Your task to perform on an android device: Go to sound settings Image 0: 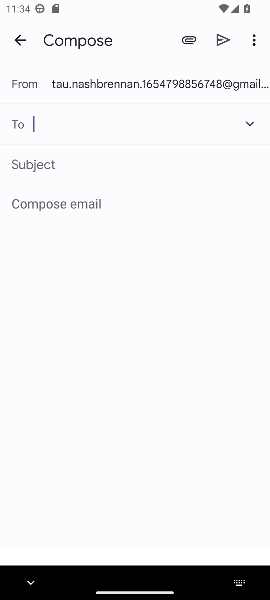
Step 0: press home button
Your task to perform on an android device: Go to sound settings Image 1: 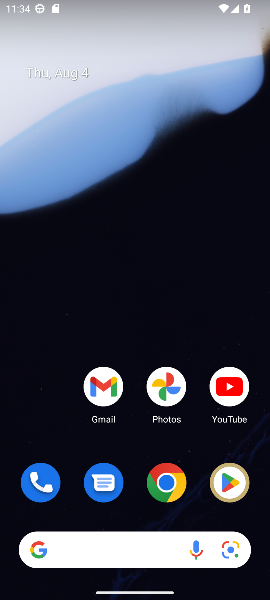
Step 1: drag from (129, 444) to (131, 139)
Your task to perform on an android device: Go to sound settings Image 2: 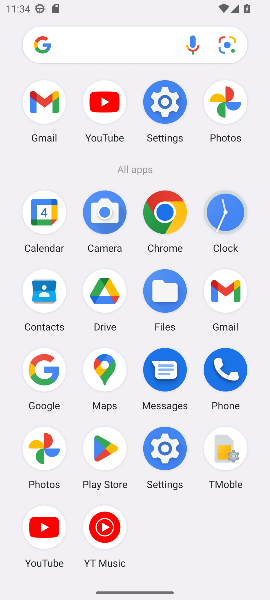
Step 2: click (154, 109)
Your task to perform on an android device: Go to sound settings Image 3: 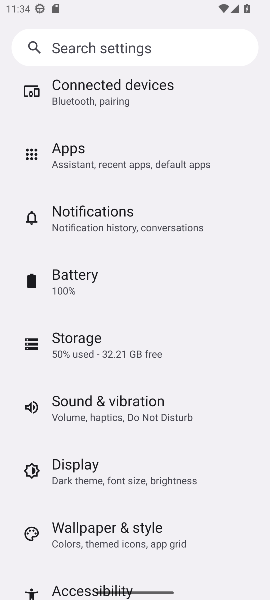
Step 3: drag from (108, 514) to (112, 228)
Your task to perform on an android device: Go to sound settings Image 4: 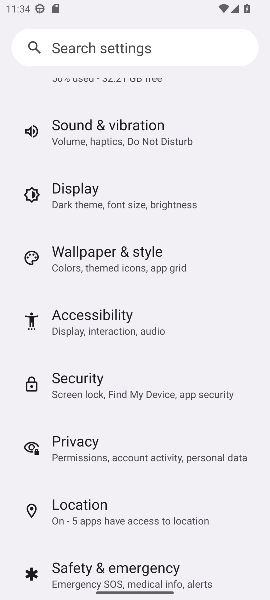
Step 4: click (119, 142)
Your task to perform on an android device: Go to sound settings Image 5: 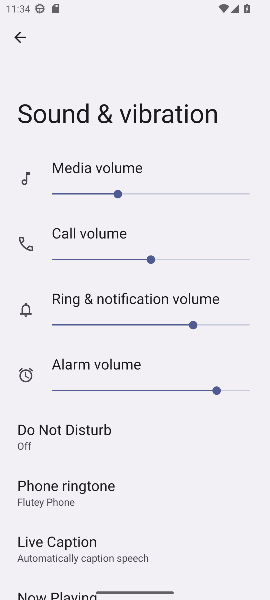
Step 5: task complete